Your task to perform on an android device: Clear the shopping cart on walmart. Add razer blade to the cart on walmart Image 0: 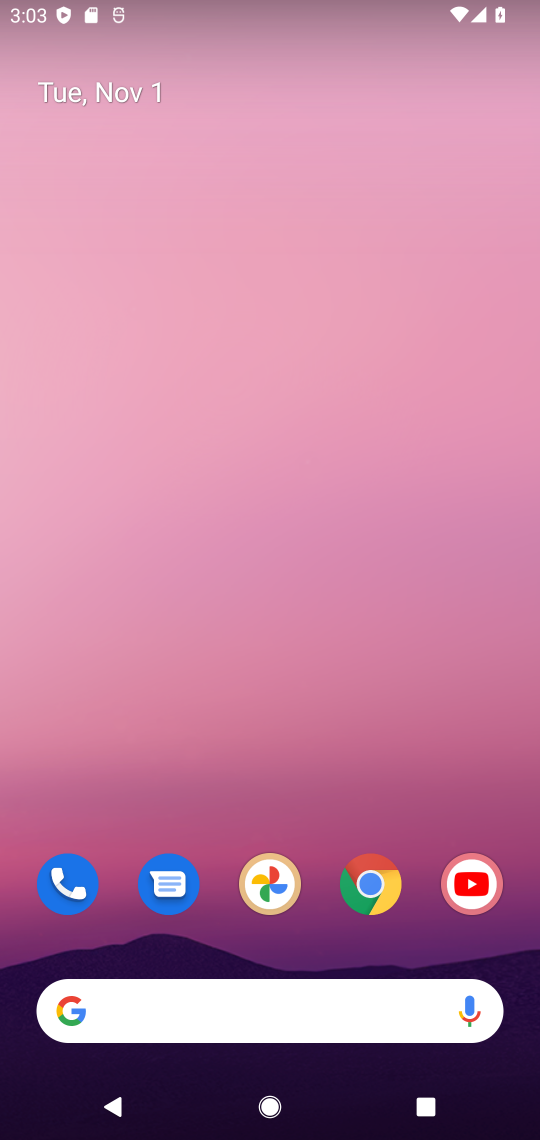
Step 0: click (366, 881)
Your task to perform on an android device: Clear the shopping cart on walmart. Add razer blade to the cart on walmart Image 1: 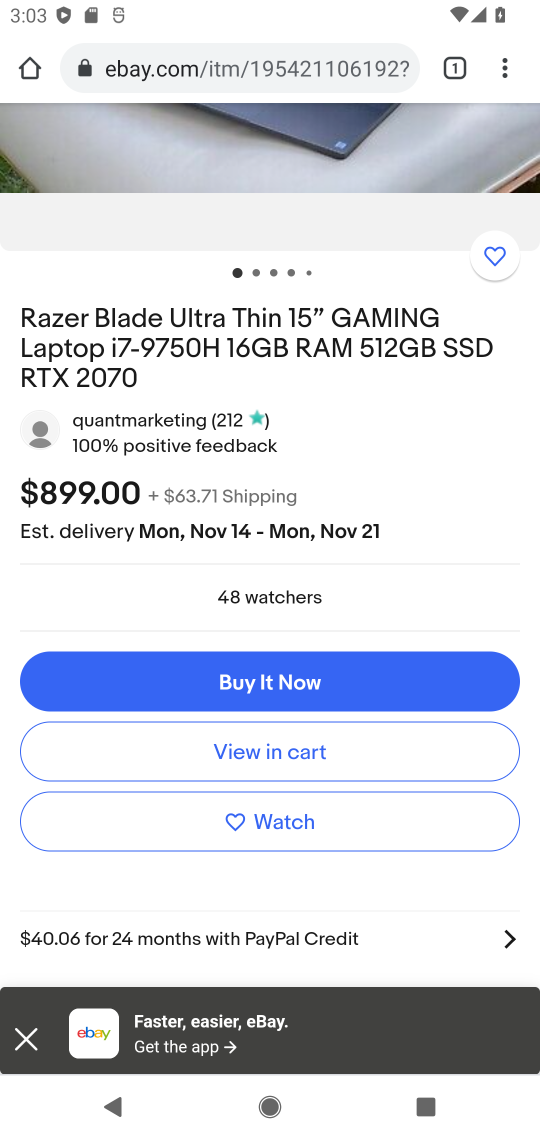
Step 1: click (360, 55)
Your task to perform on an android device: Clear the shopping cart on walmart. Add razer blade to the cart on walmart Image 2: 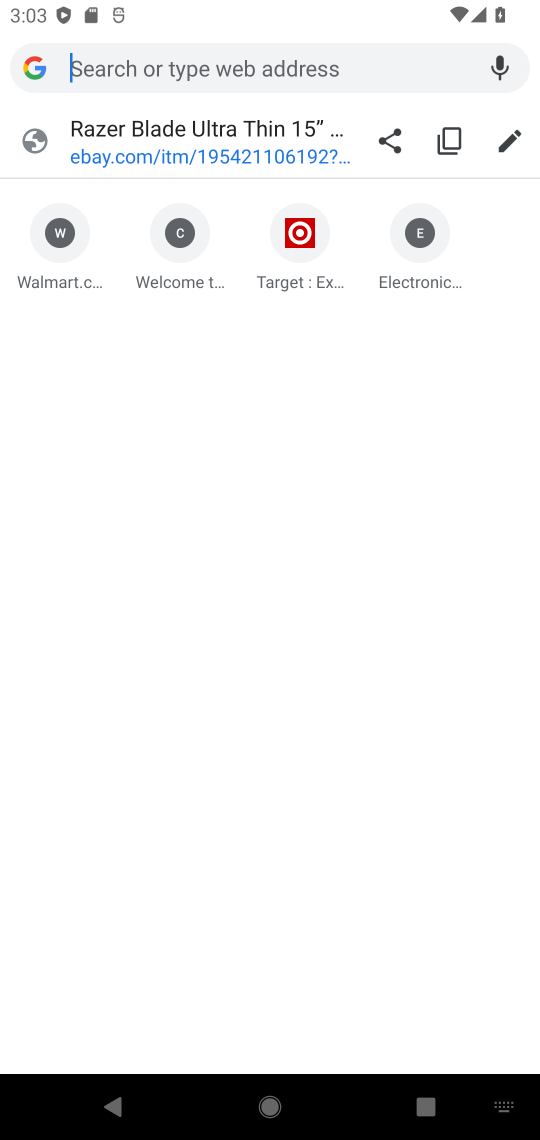
Step 2: type "walmart."
Your task to perform on an android device: Clear the shopping cart on walmart. Add razer blade to the cart on walmart Image 3: 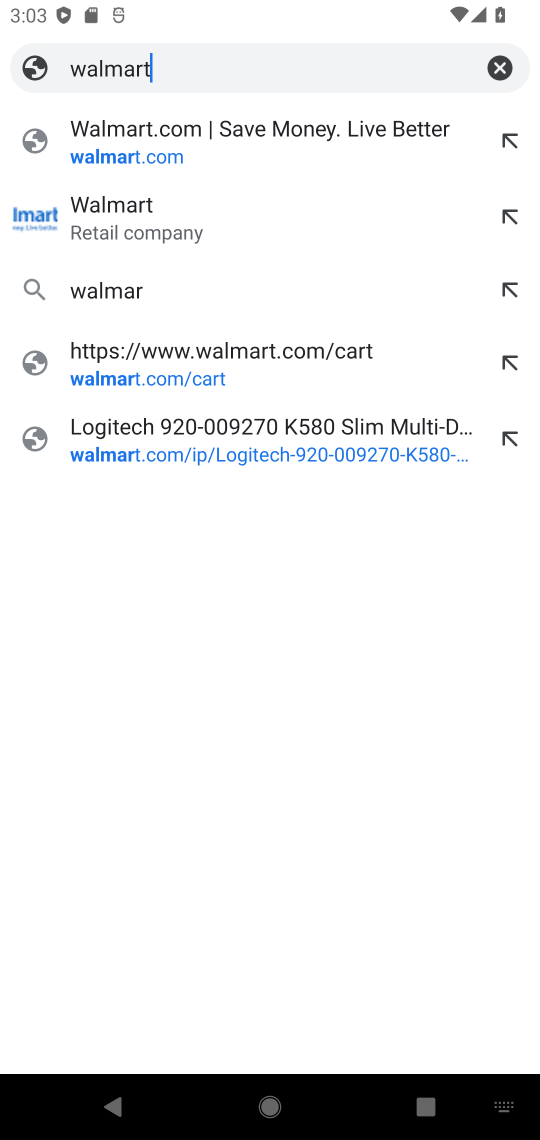
Step 3: press enter
Your task to perform on an android device: Clear the shopping cart on walmart. Add razer blade to the cart on walmart Image 4: 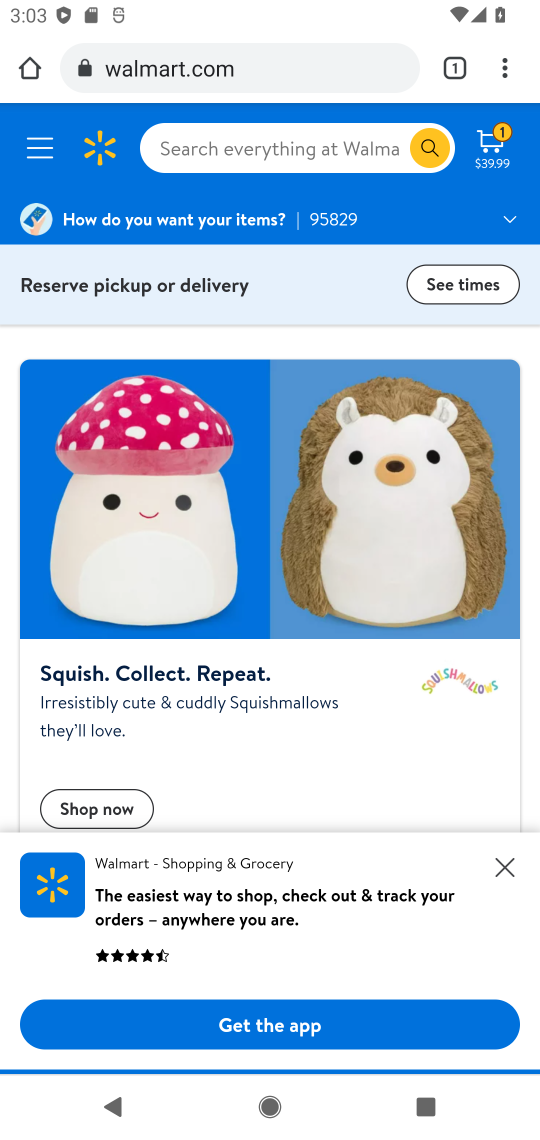
Step 4: click (245, 146)
Your task to perform on an android device: Clear the shopping cart on walmart. Add razer blade to the cart on walmart Image 5: 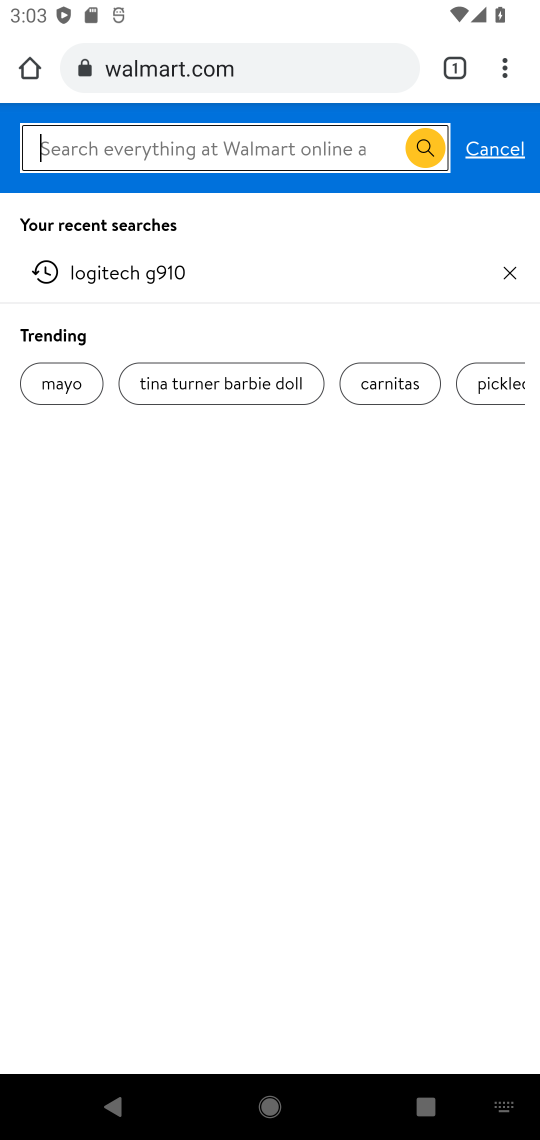
Step 5: click (492, 149)
Your task to perform on an android device: Clear the shopping cart on walmart. Add razer blade to the cart on walmart Image 6: 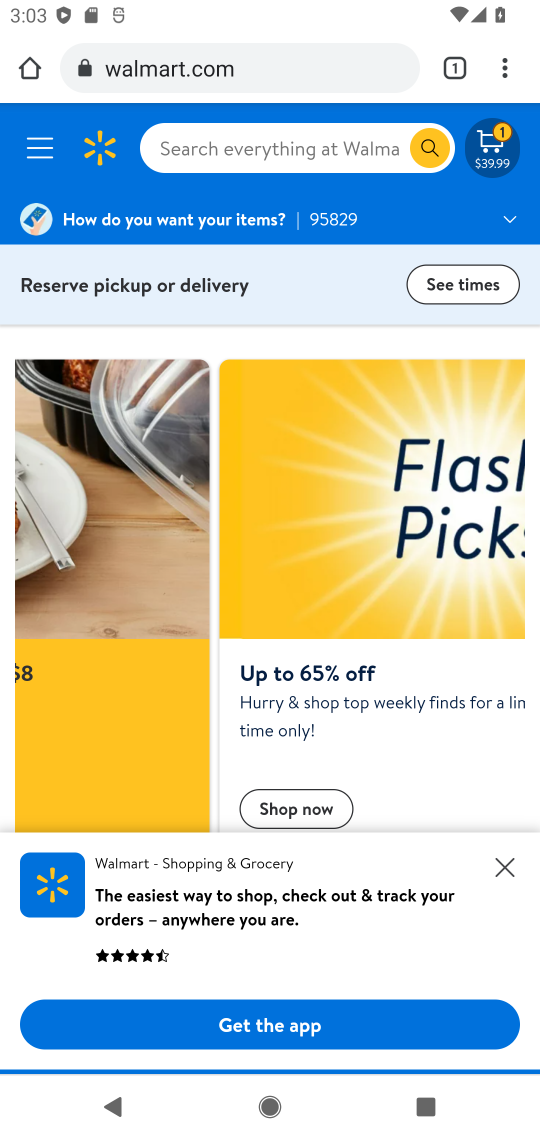
Step 6: click (495, 152)
Your task to perform on an android device: Clear the shopping cart on walmart. Add razer blade to the cart on walmart Image 7: 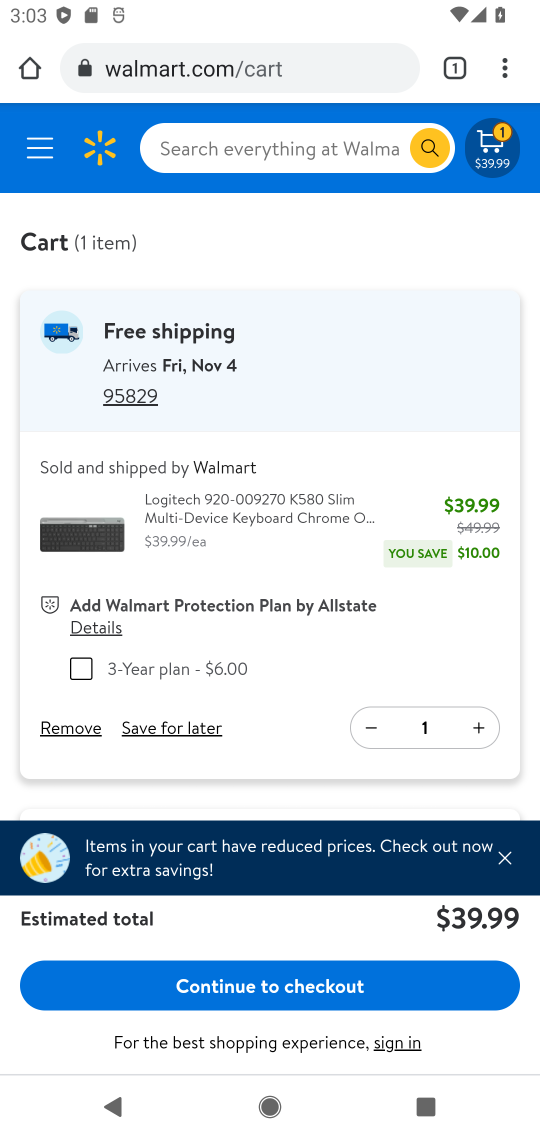
Step 7: click (55, 728)
Your task to perform on an android device: Clear the shopping cart on walmart. Add razer blade to the cart on walmart Image 8: 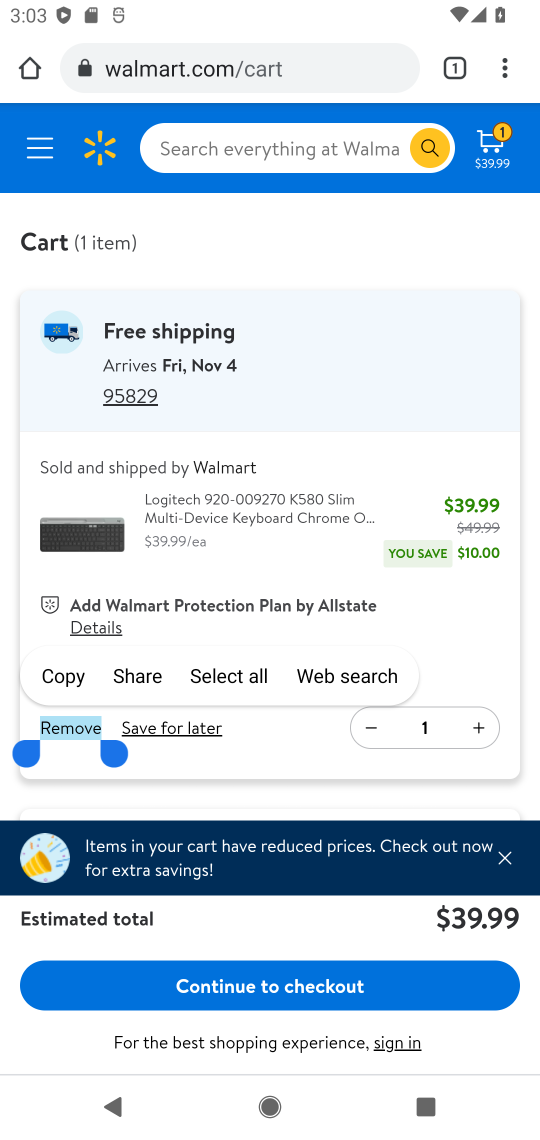
Step 8: click (71, 725)
Your task to perform on an android device: Clear the shopping cart on walmart. Add razer blade to the cart on walmart Image 9: 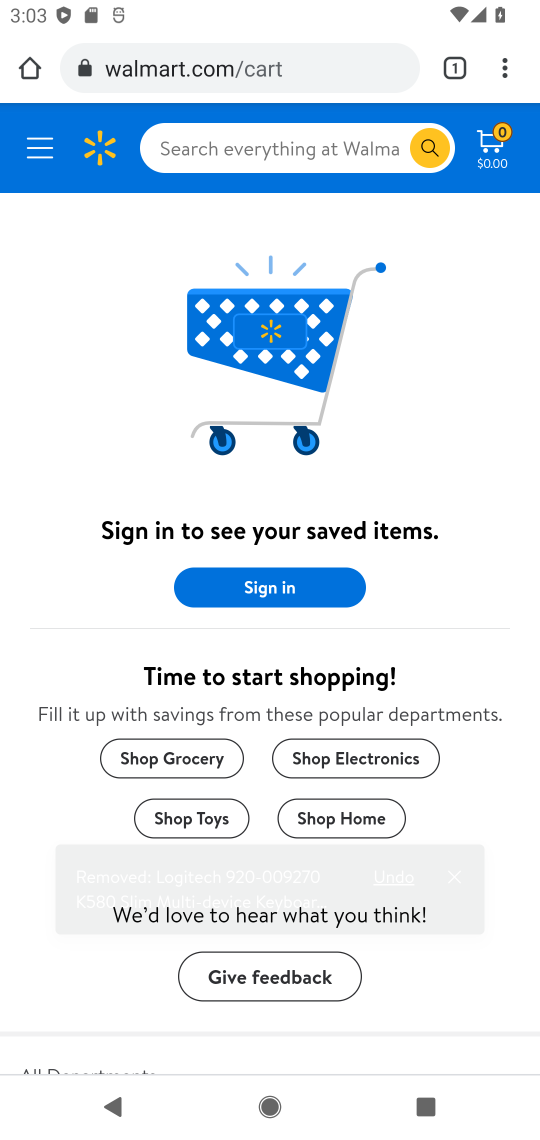
Step 9: click (269, 143)
Your task to perform on an android device: Clear the shopping cart on walmart. Add razer blade to the cart on walmart Image 10: 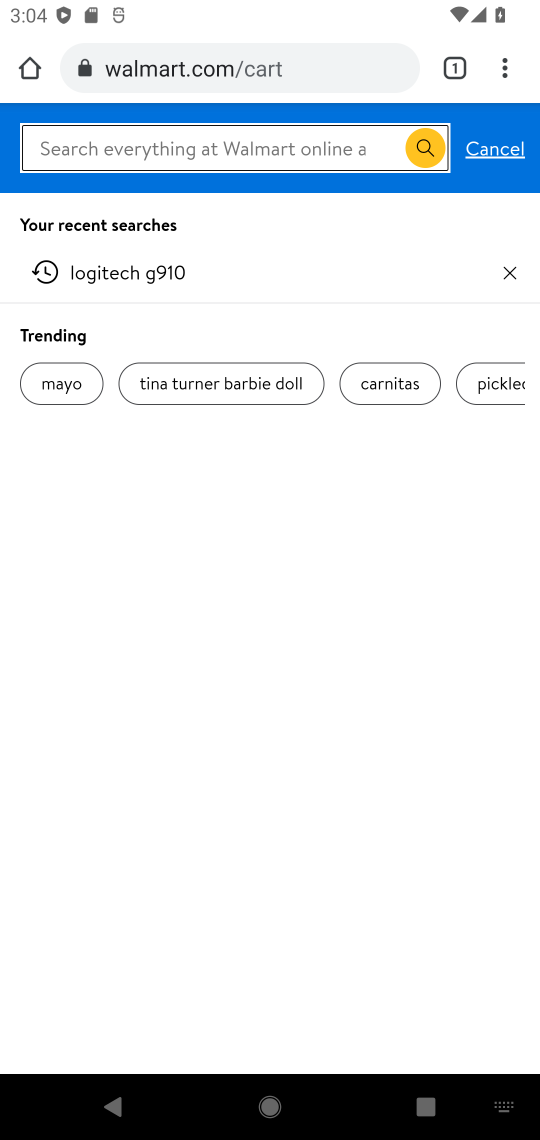
Step 10: type "razer blade"
Your task to perform on an android device: Clear the shopping cart on walmart. Add razer blade to the cart on walmart Image 11: 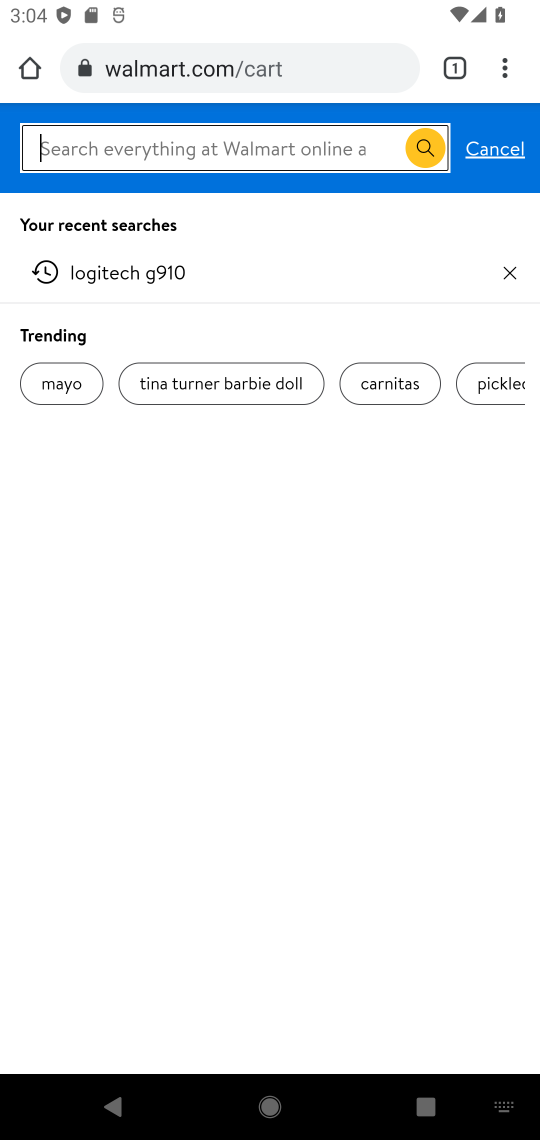
Step 11: press enter
Your task to perform on an android device: Clear the shopping cart on walmart. Add razer blade to the cart on walmart Image 12: 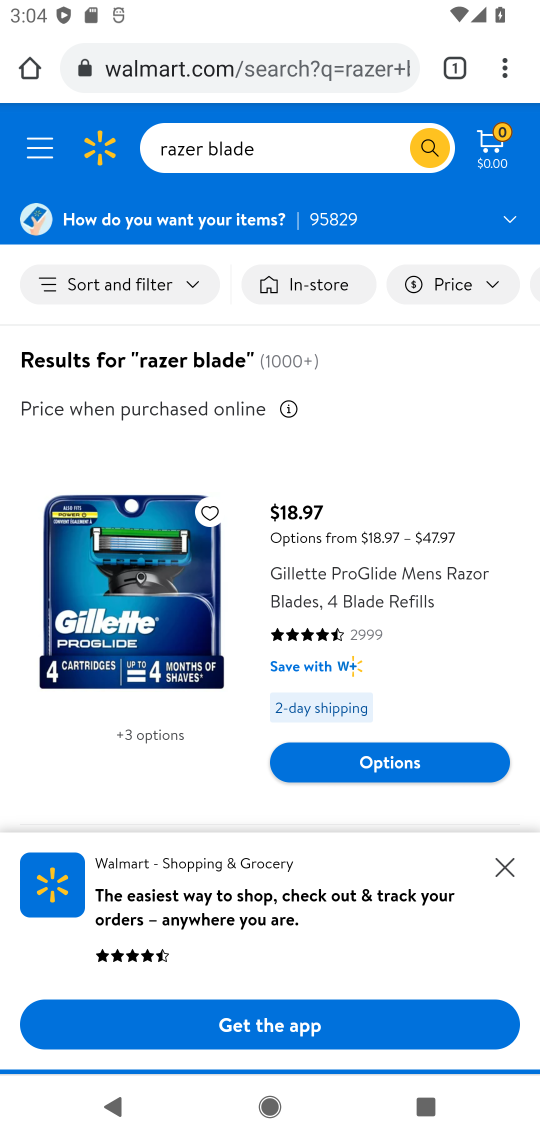
Step 12: click (115, 594)
Your task to perform on an android device: Clear the shopping cart on walmart. Add razer blade to the cart on walmart Image 13: 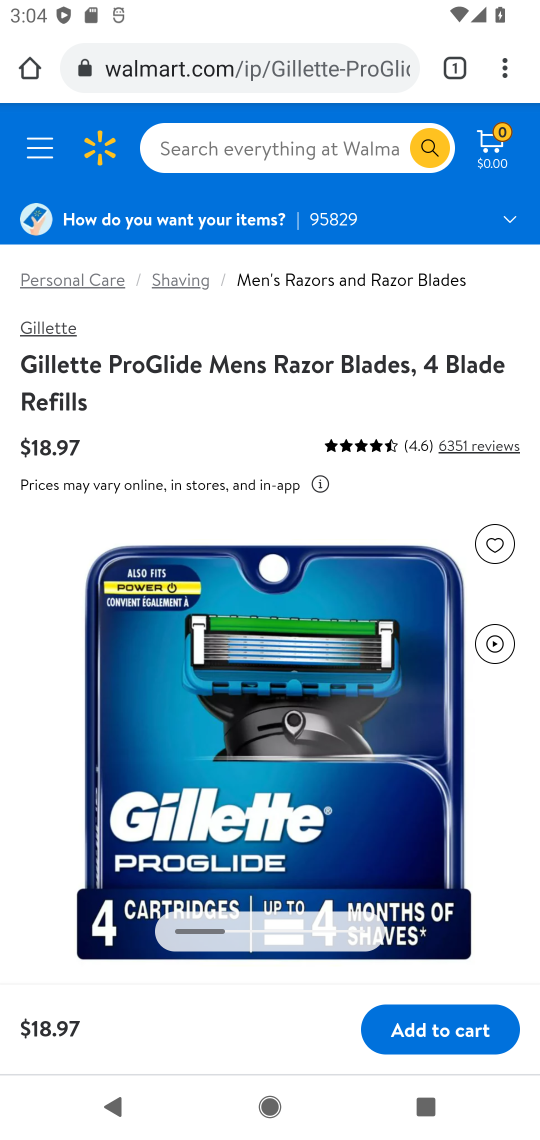
Step 13: click (459, 1025)
Your task to perform on an android device: Clear the shopping cart on walmart. Add razer blade to the cart on walmart Image 14: 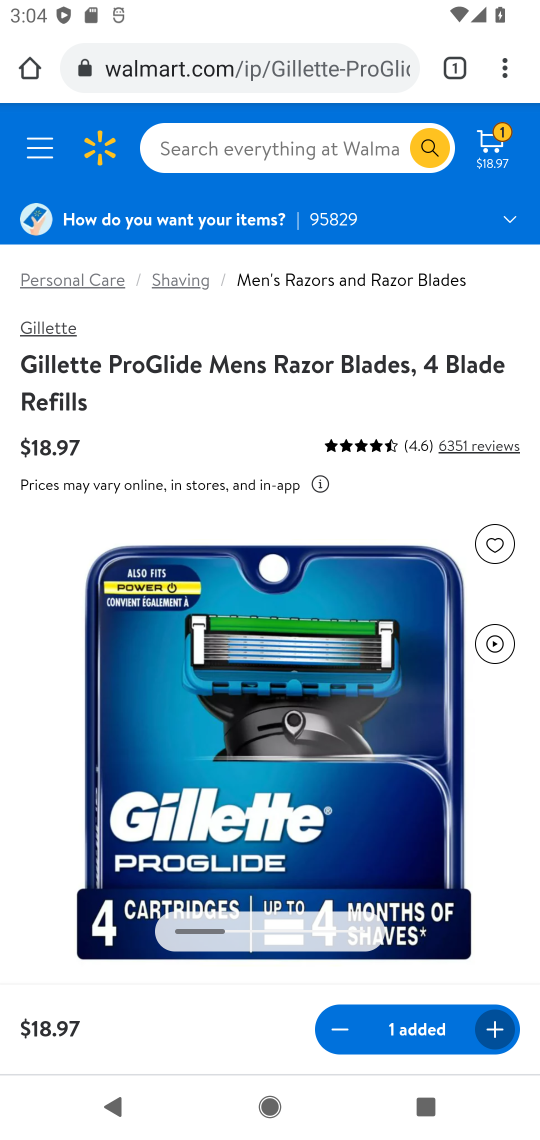
Step 14: task complete